Your task to perform on an android device: open chrome and create a bookmark for the current page Image 0: 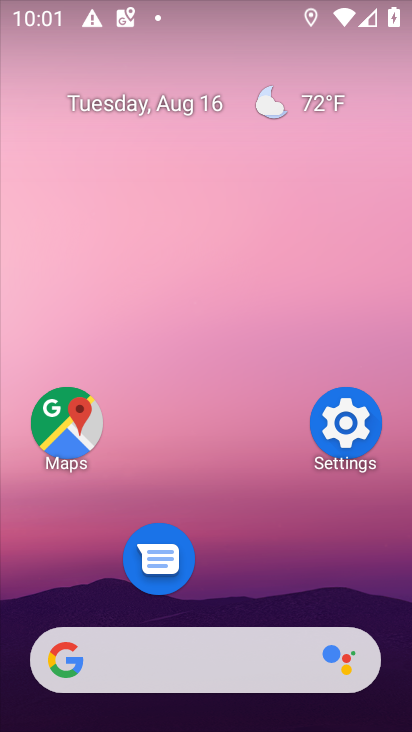
Step 0: drag from (244, 593) to (330, 0)
Your task to perform on an android device: open chrome and create a bookmark for the current page Image 1: 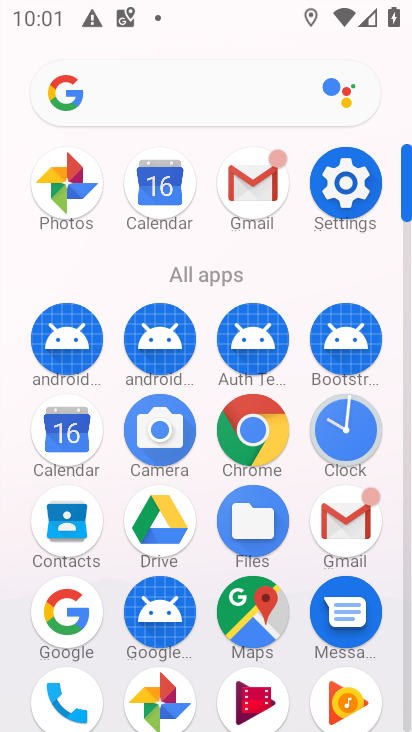
Step 1: drag from (258, 419) to (279, 526)
Your task to perform on an android device: open chrome and create a bookmark for the current page Image 2: 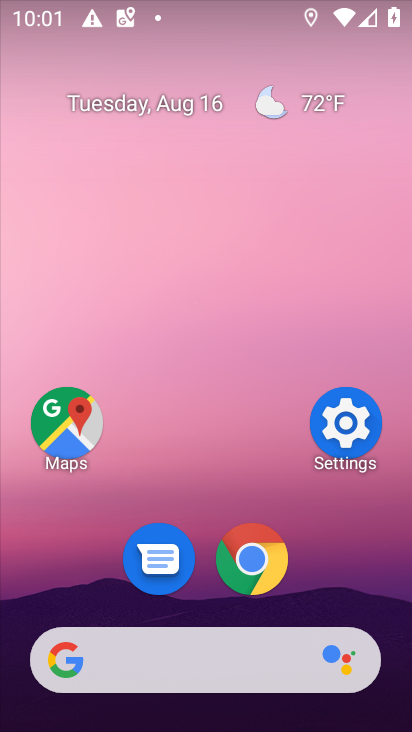
Step 2: click (265, 560)
Your task to perform on an android device: open chrome and create a bookmark for the current page Image 3: 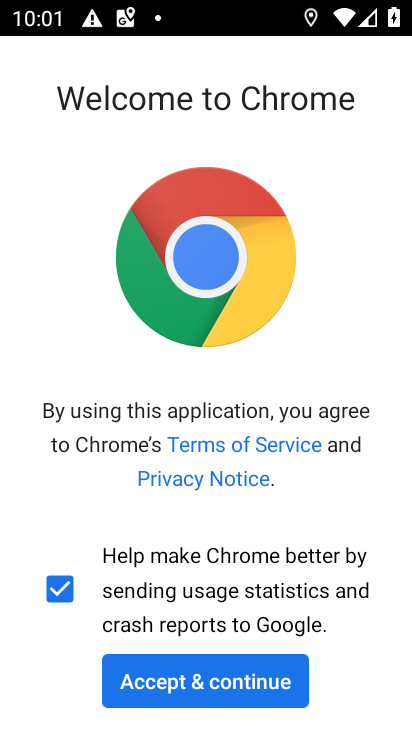
Step 3: click (225, 668)
Your task to perform on an android device: open chrome and create a bookmark for the current page Image 4: 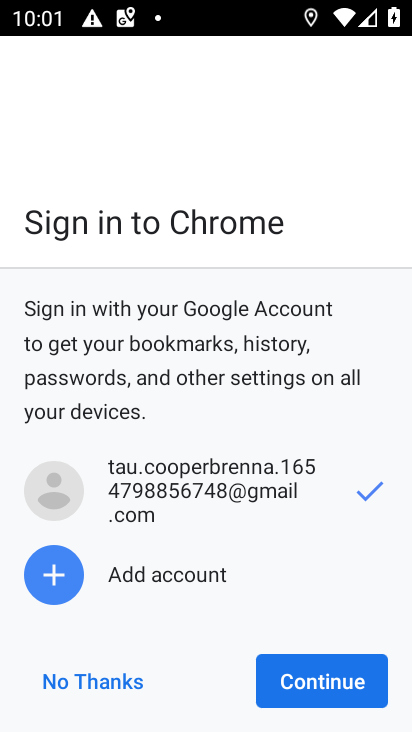
Step 4: click (354, 671)
Your task to perform on an android device: open chrome and create a bookmark for the current page Image 5: 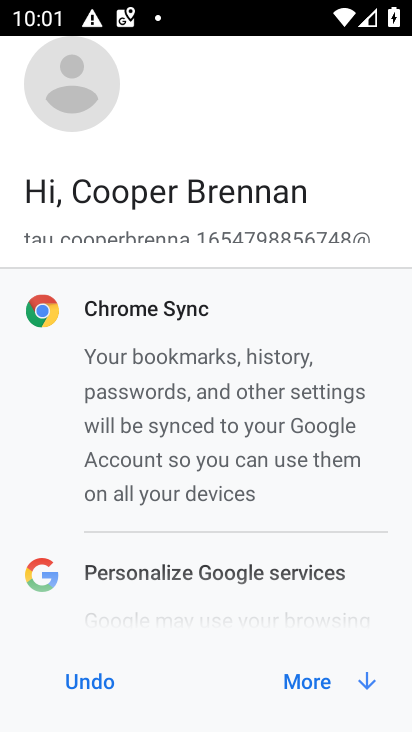
Step 5: click (317, 674)
Your task to perform on an android device: open chrome and create a bookmark for the current page Image 6: 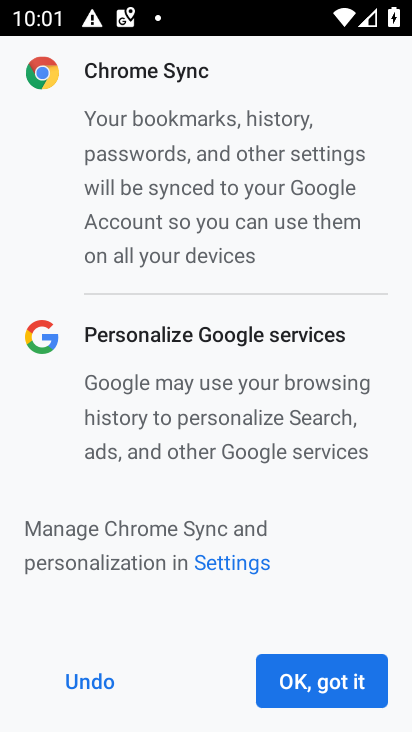
Step 6: click (309, 691)
Your task to perform on an android device: open chrome and create a bookmark for the current page Image 7: 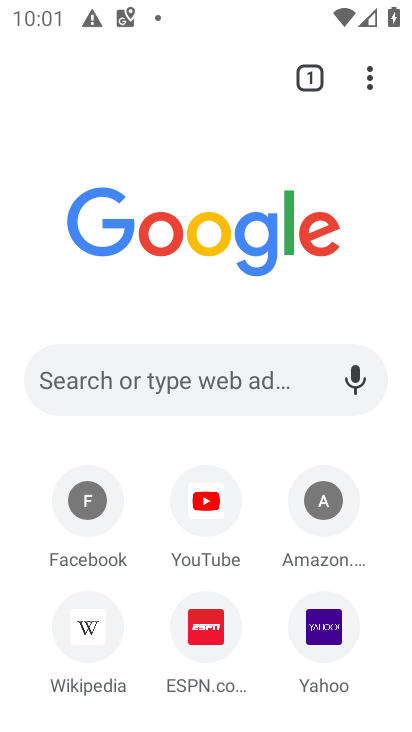
Step 7: click (368, 97)
Your task to perform on an android device: open chrome and create a bookmark for the current page Image 8: 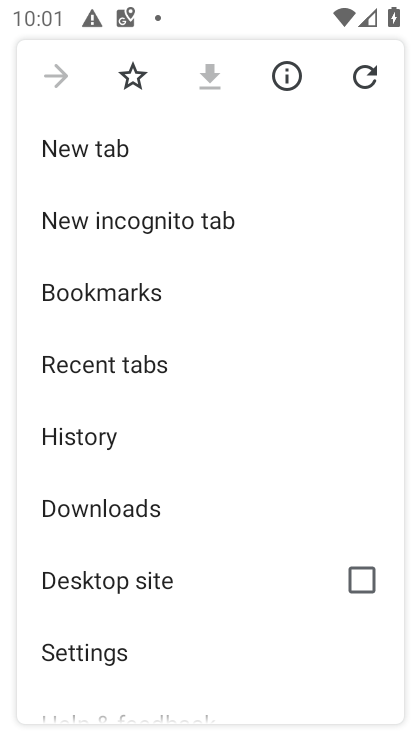
Step 8: click (135, 73)
Your task to perform on an android device: open chrome and create a bookmark for the current page Image 9: 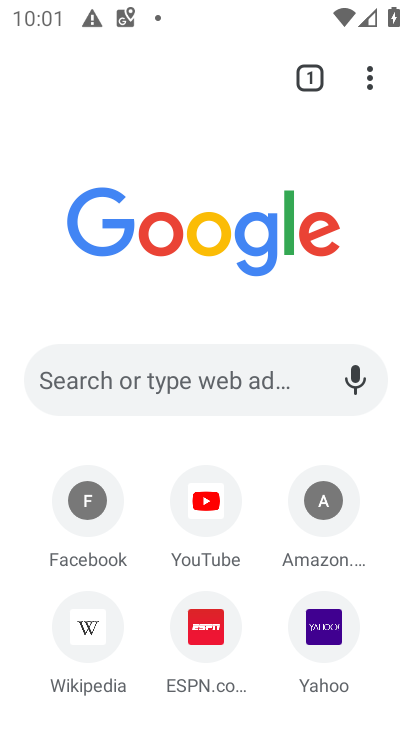
Step 9: task complete